Your task to perform on an android device: Go to Google maps Image 0: 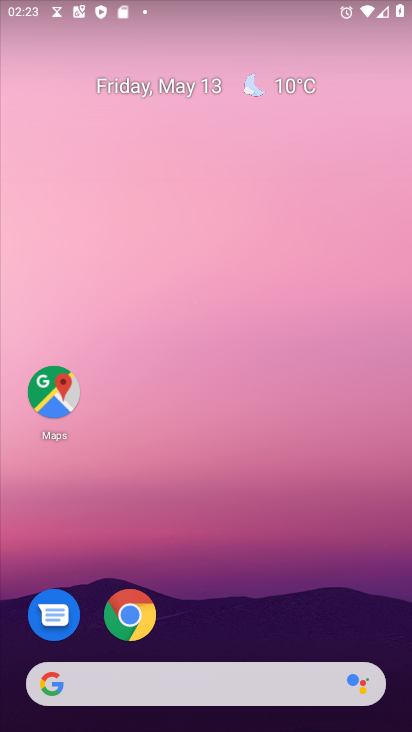
Step 0: click (70, 396)
Your task to perform on an android device: Go to Google maps Image 1: 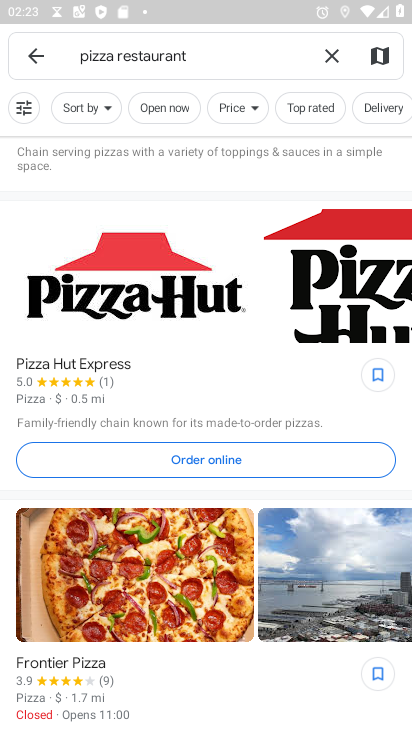
Step 1: press back button
Your task to perform on an android device: Go to Google maps Image 2: 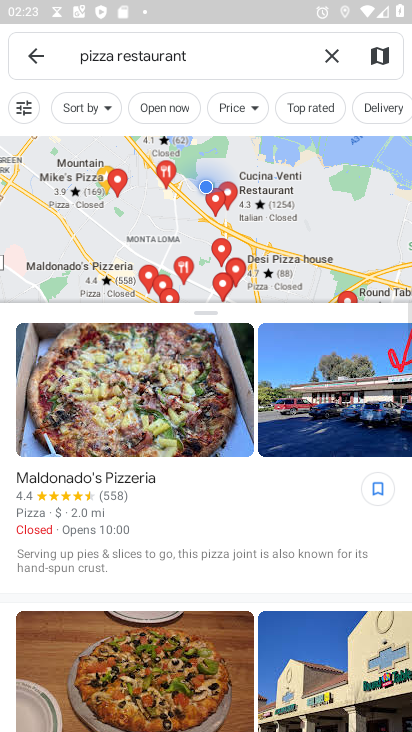
Step 2: press back button
Your task to perform on an android device: Go to Google maps Image 3: 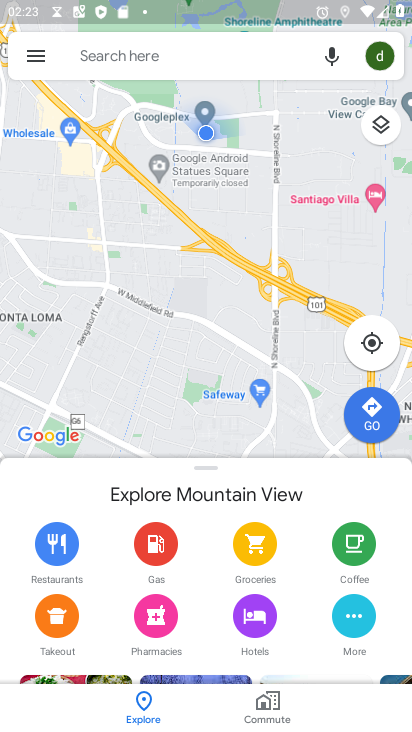
Step 3: press back button
Your task to perform on an android device: Go to Google maps Image 4: 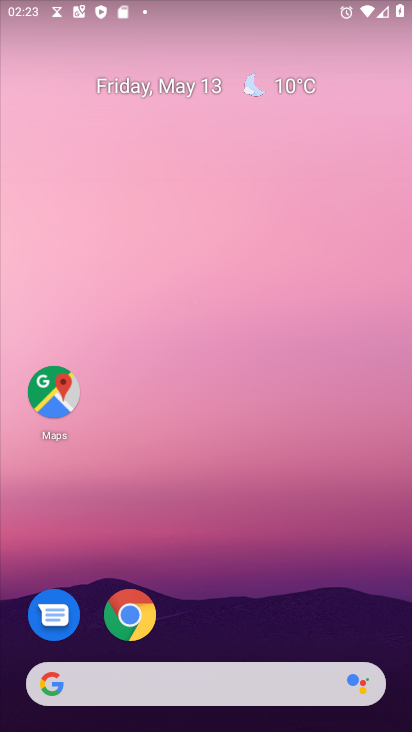
Step 4: click (51, 402)
Your task to perform on an android device: Go to Google maps Image 5: 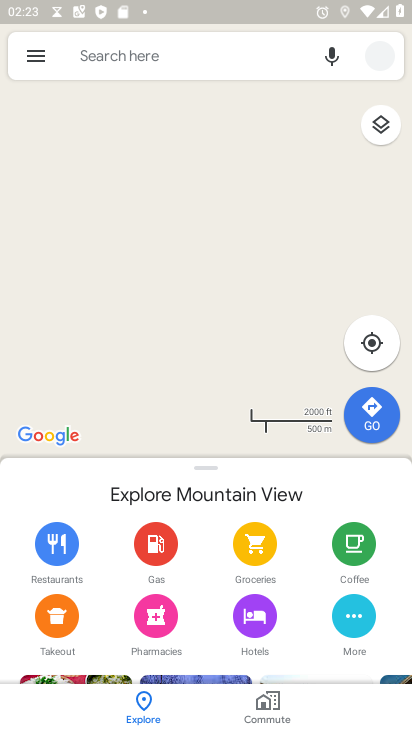
Step 5: task complete